Your task to perform on an android device: Open Chrome and go to the settings page Image 0: 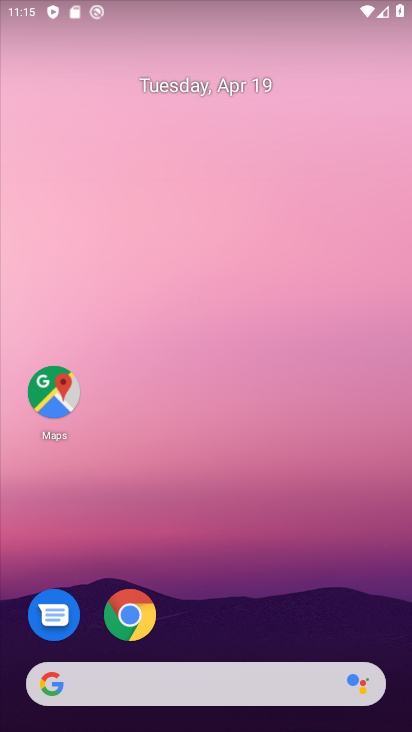
Step 0: click (132, 610)
Your task to perform on an android device: Open Chrome and go to the settings page Image 1: 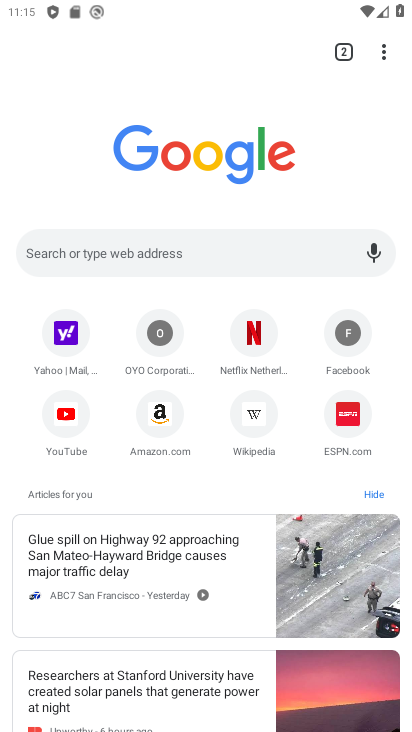
Step 1: click (380, 55)
Your task to perform on an android device: Open Chrome and go to the settings page Image 2: 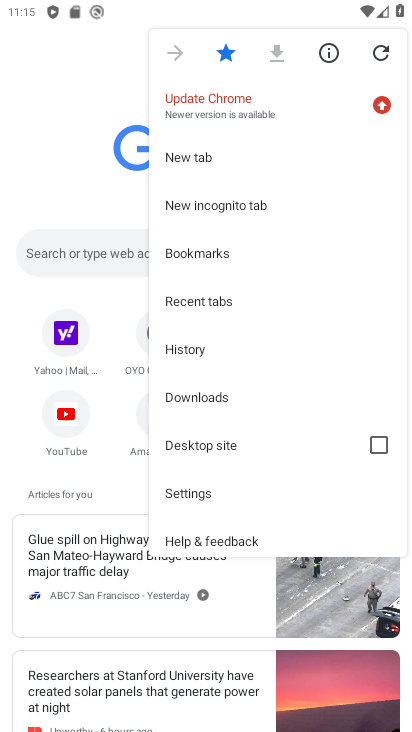
Step 2: click (202, 496)
Your task to perform on an android device: Open Chrome and go to the settings page Image 3: 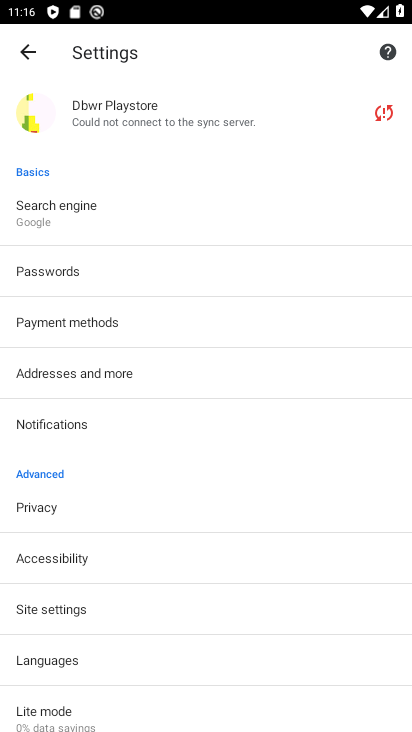
Step 3: task complete